Your task to perform on an android device: find snoozed emails in the gmail app Image 0: 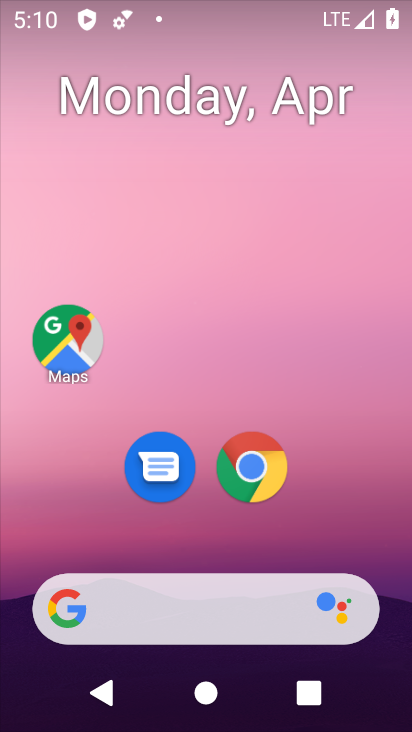
Step 0: drag from (358, 303) to (326, 3)
Your task to perform on an android device: find snoozed emails in the gmail app Image 1: 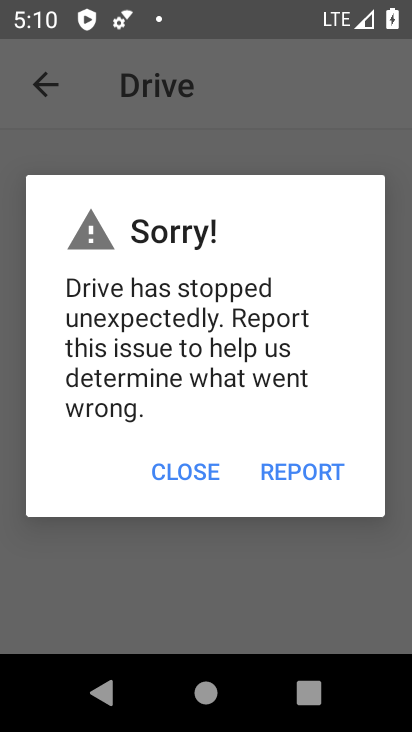
Step 1: press home button
Your task to perform on an android device: find snoozed emails in the gmail app Image 2: 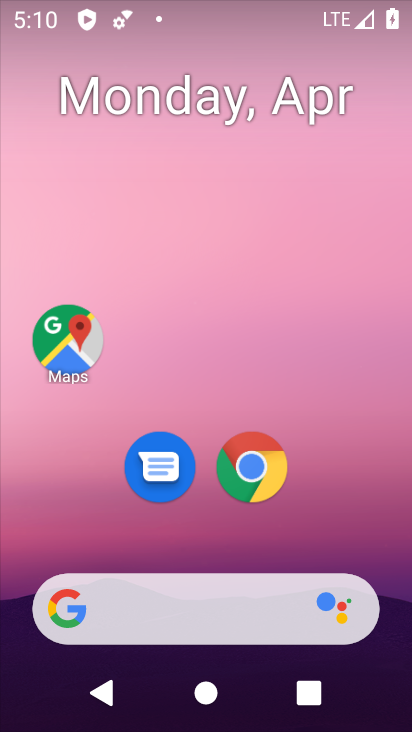
Step 2: drag from (376, 563) to (347, 60)
Your task to perform on an android device: find snoozed emails in the gmail app Image 3: 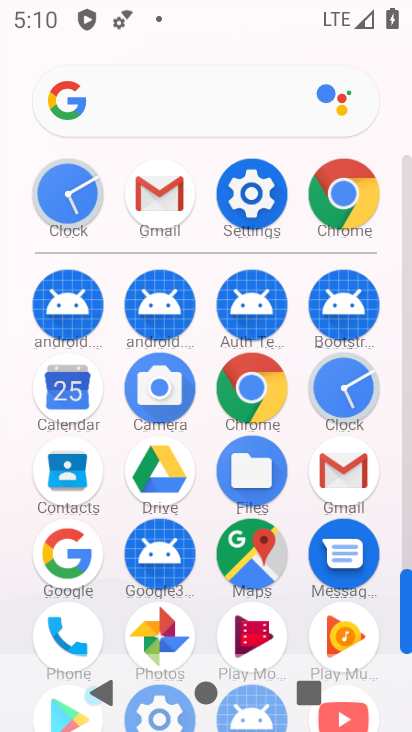
Step 3: click (258, 224)
Your task to perform on an android device: find snoozed emails in the gmail app Image 4: 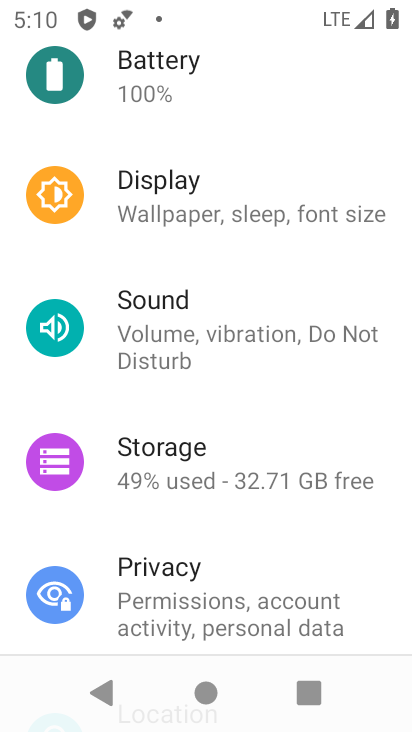
Step 4: press home button
Your task to perform on an android device: find snoozed emails in the gmail app Image 5: 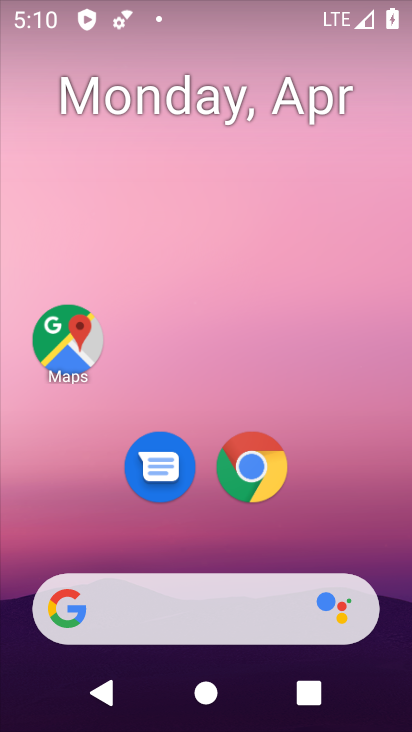
Step 5: drag from (349, 573) to (320, 2)
Your task to perform on an android device: find snoozed emails in the gmail app Image 6: 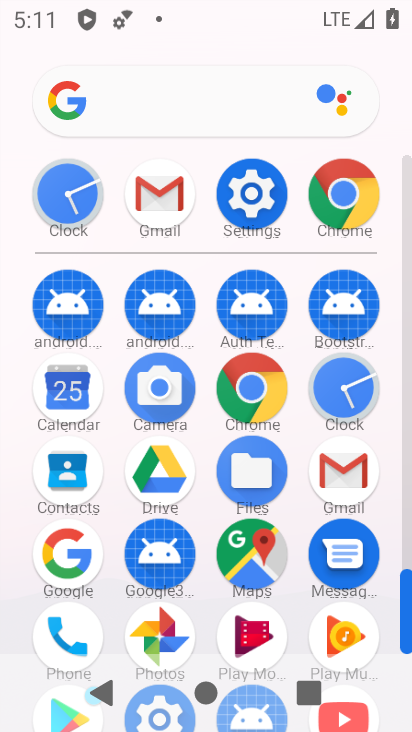
Step 6: click (327, 468)
Your task to perform on an android device: find snoozed emails in the gmail app Image 7: 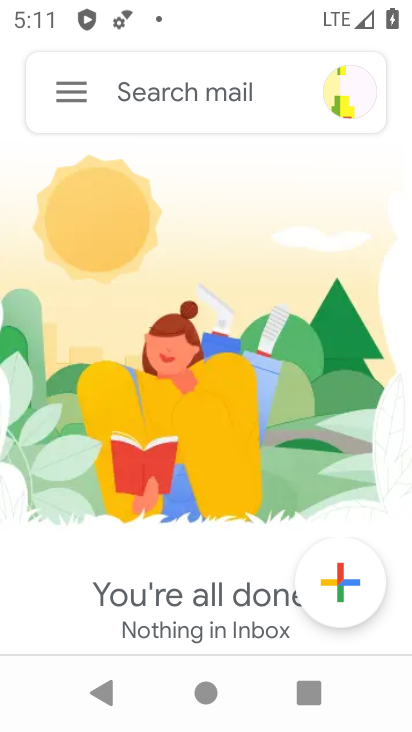
Step 7: task complete